Your task to perform on an android device: open app "Pinterest" (install if not already installed) Image 0: 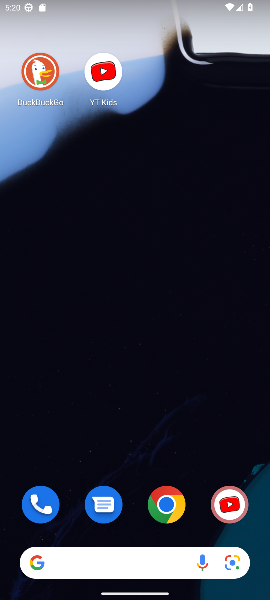
Step 0: press home button
Your task to perform on an android device: open app "Pinterest" (install if not already installed) Image 1: 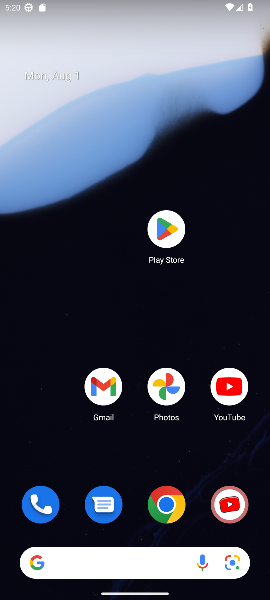
Step 1: click (165, 226)
Your task to perform on an android device: open app "Pinterest" (install if not already installed) Image 2: 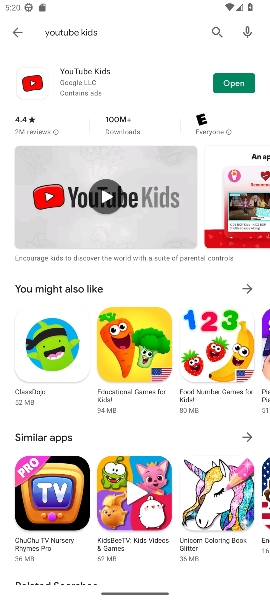
Step 2: click (216, 30)
Your task to perform on an android device: open app "Pinterest" (install if not already installed) Image 3: 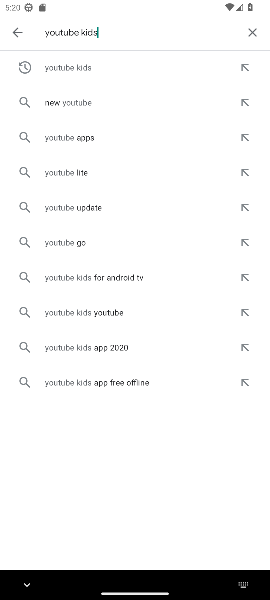
Step 3: click (251, 32)
Your task to perform on an android device: open app "Pinterest" (install if not already installed) Image 4: 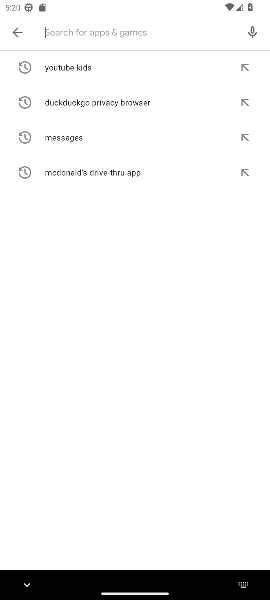
Step 4: type "Pinterest"
Your task to perform on an android device: open app "Pinterest" (install if not already installed) Image 5: 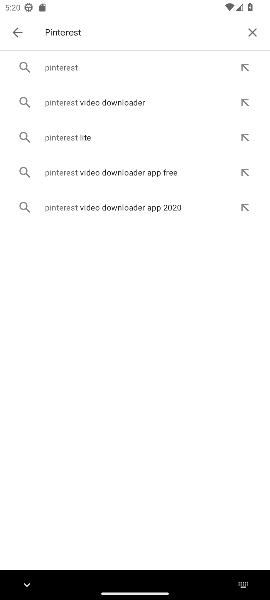
Step 5: click (72, 63)
Your task to perform on an android device: open app "Pinterest" (install if not already installed) Image 6: 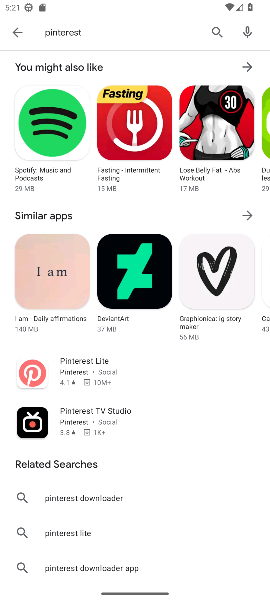
Step 6: click (91, 382)
Your task to perform on an android device: open app "Pinterest" (install if not already installed) Image 7: 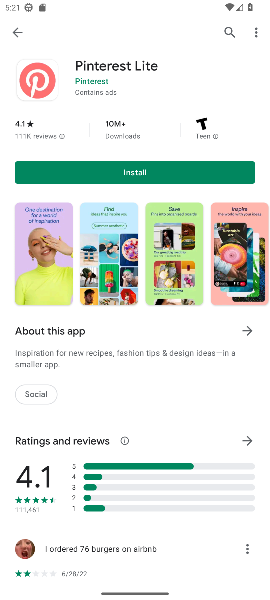
Step 7: click (143, 172)
Your task to perform on an android device: open app "Pinterest" (install if not already installed) Image 8: 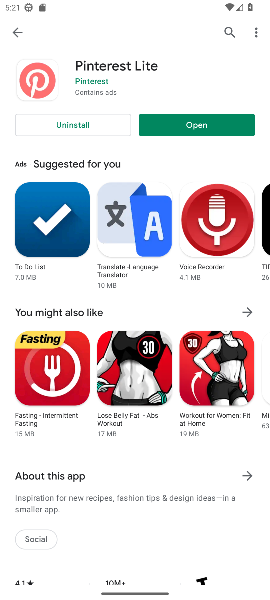
Step 8: click (200, 122)
Your task to perform on an android device: open app "Pinterest" (install if not already installed) Image 9: 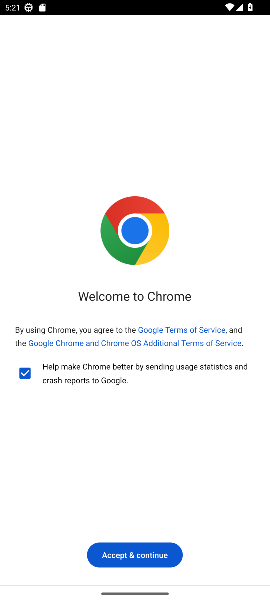
Step 9: task complete